Your task to perform on an android device: When is my next meeting? Image 0: 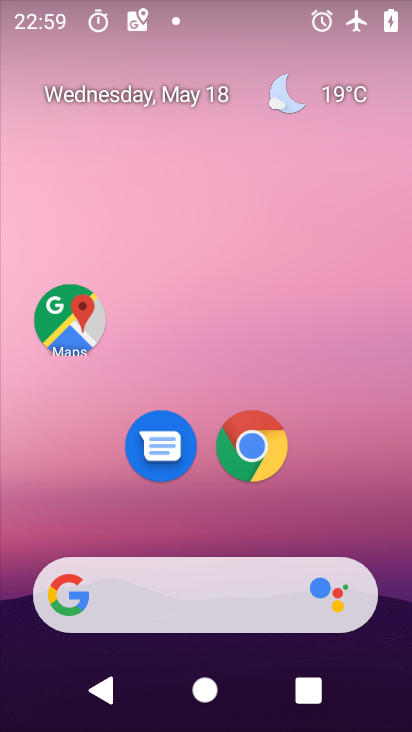
Step 0: press home button
Your task to perform on an android device: When is my next meeting? Image 1: 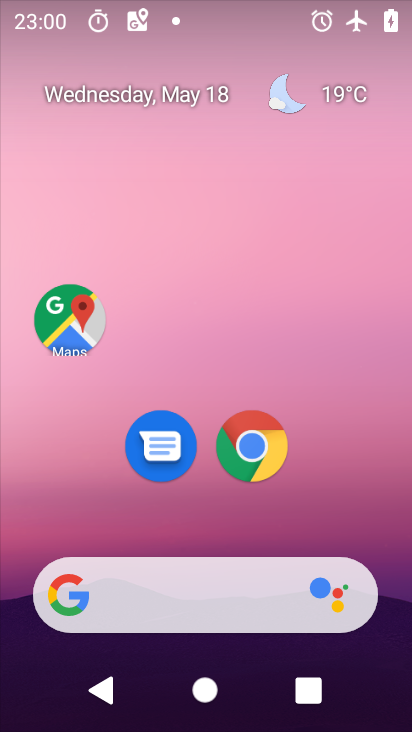
Step 1: drag from (179, 580) to (328, 110)
Your task to perform on an android device: When is my next meeting? Image 2: 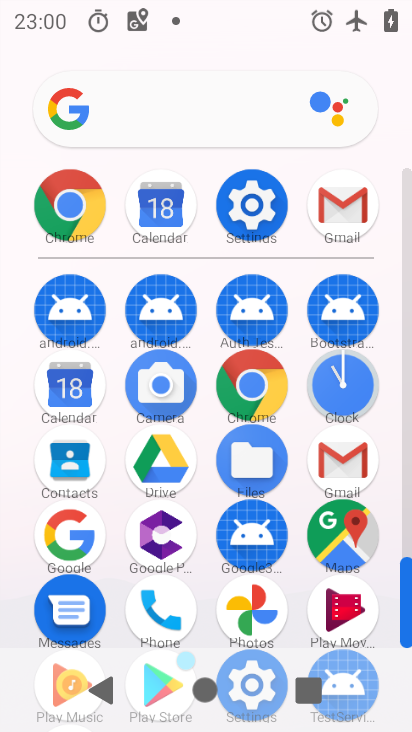
Step 2: click (58, 394)
Your task to perform on an android device: When is my next meeting? Image 3: 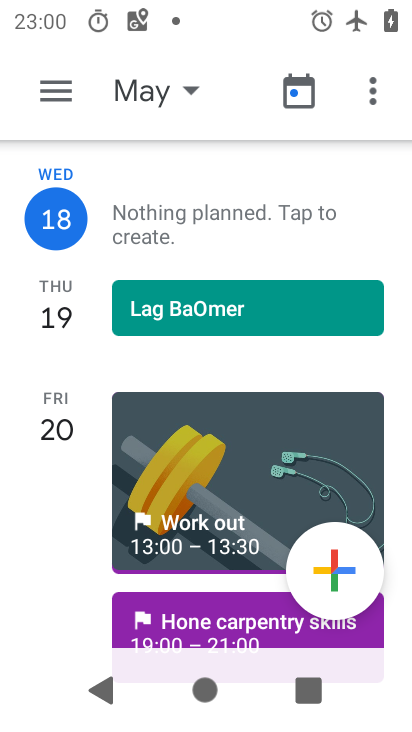
Step 3: drag from (206, 481) to (295, 191)
Your task to perform on an android device: When is my next meeting? Image 4: 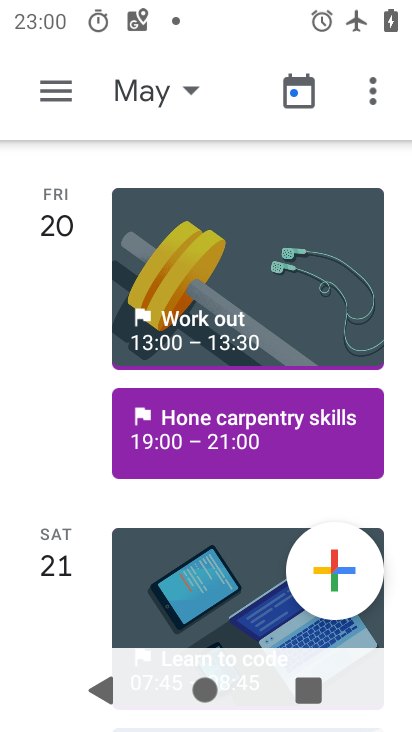
Step 4: click (201, 418)
Your task to perform on an android device: When is my next meeting? Image 5: 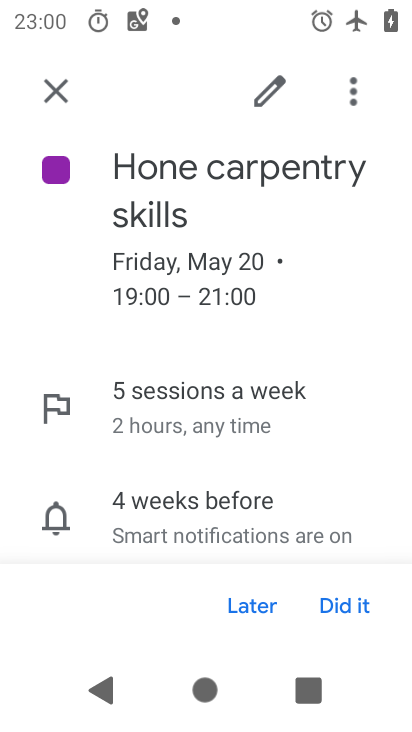
Step 5: task complete